Your task to perform on an android device: Go to privacy settings Image 0: 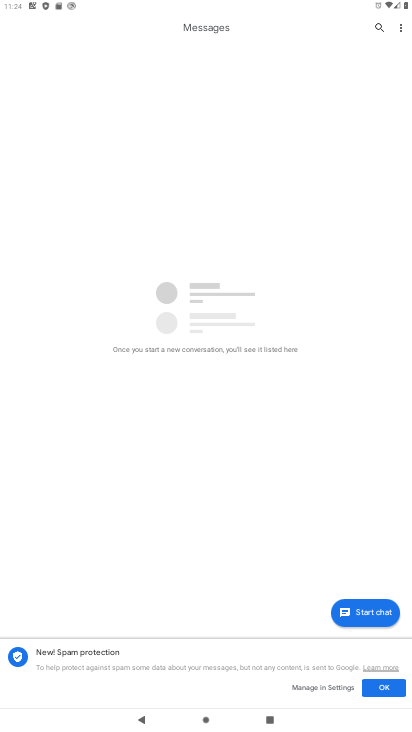
Step 0: press home button
Your task to perform on an android device: Go to privacy settings Image 1: 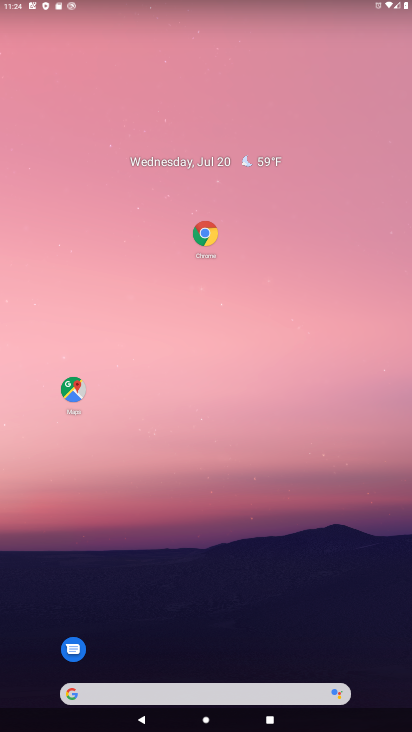
Step 1: drag from (214, 643) to (224, 111)
Your task to perform on an android device: Go to privacy settings Image 2: 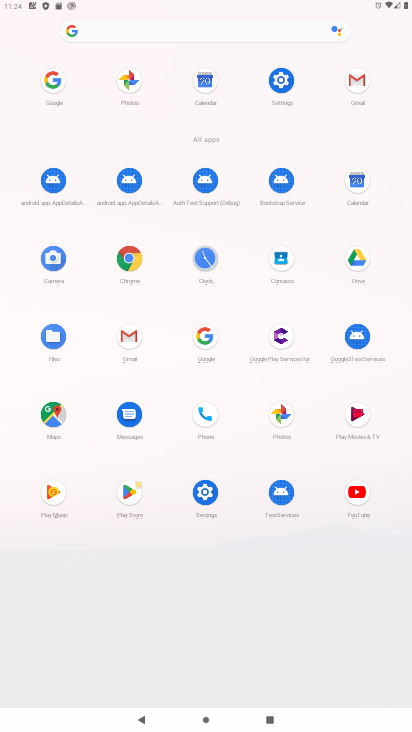
Step 2: click (283, 79)
Your task to perform on an android device: Go to privacy settings Image 3: 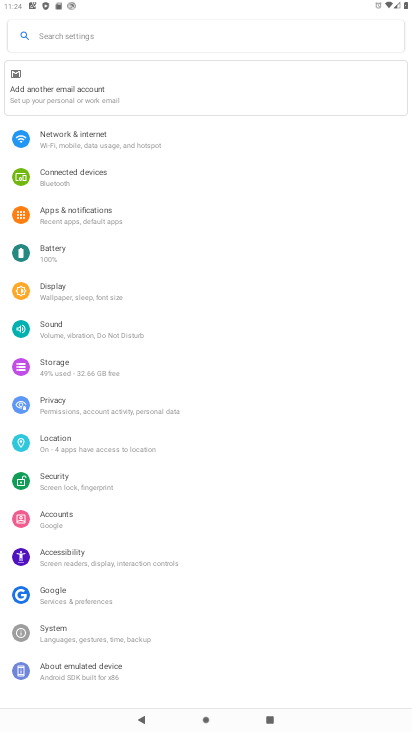
Step 3: click (56, 402)
Your task to perform on an android device: Go to privacy settings Image 4: 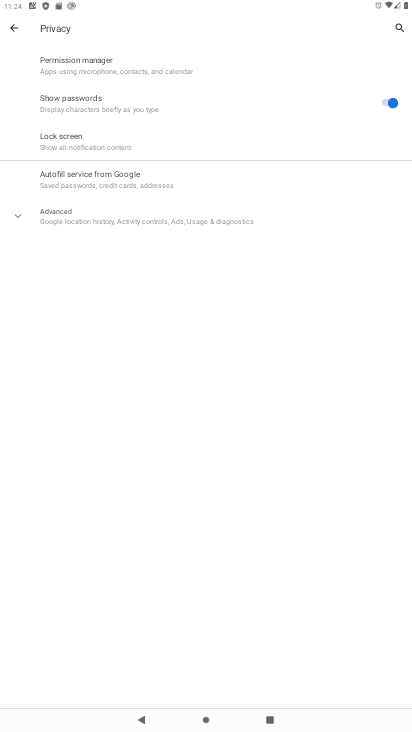
Step 4: task complete